Your task to perform on an android device: delete a single message in the gmail app Image 0: 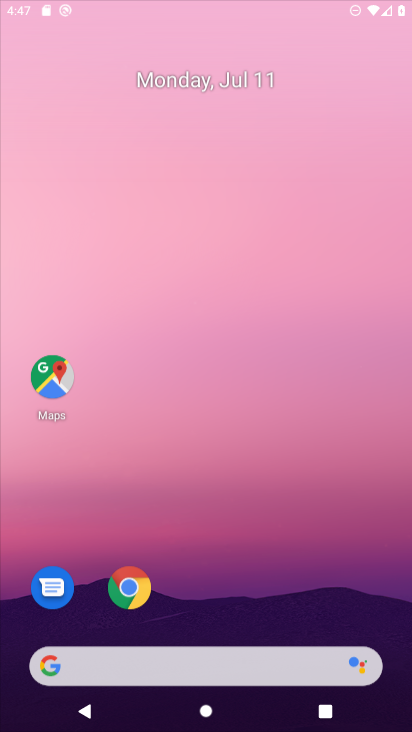
Step 0: press home button
Your task to perform on an android device: delete a single message in the gmail app Image 1: 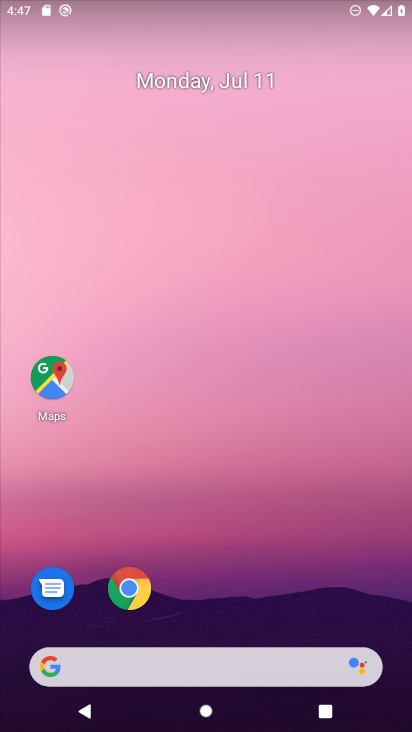
Step 1: drag from (247, 631) to (277, 49)
Your task to perform on an android device: delete a single message in the gmail app Image 2: 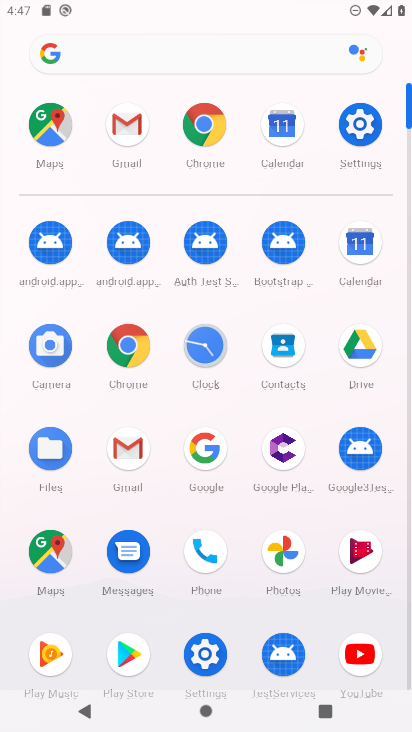
Step 2: click (123, 127)
Your task to perform on an android device: delete a single message in the gmail app Image 3: 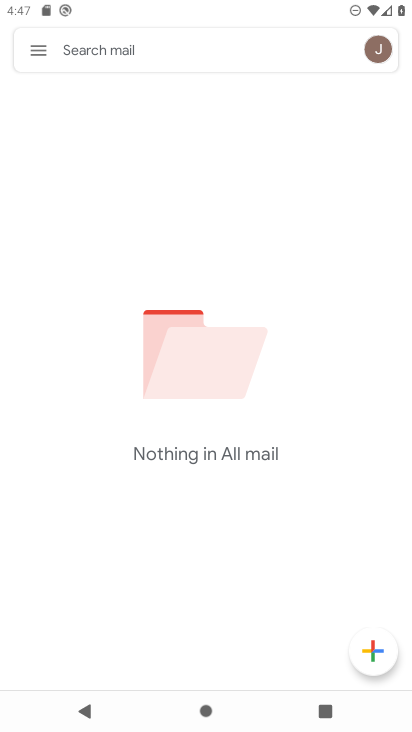
Step 3: click (35, 55)
Your task to perform on an android device: delete a single message in the gmail app Image 4: 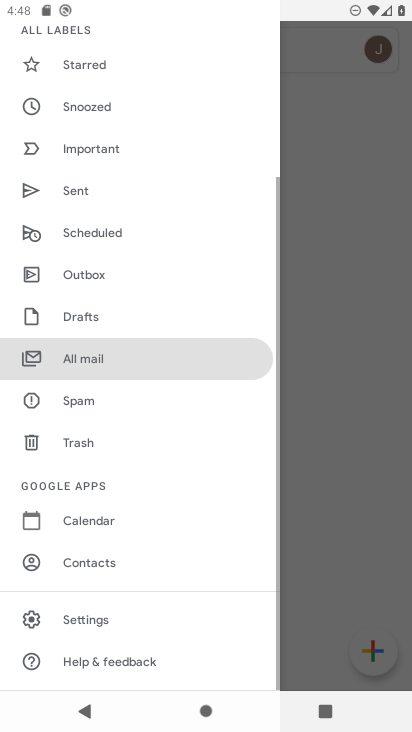
Step 4: click (115, 367)
Your task to perform on an android device: delete a single message in the gmail app Image 5: 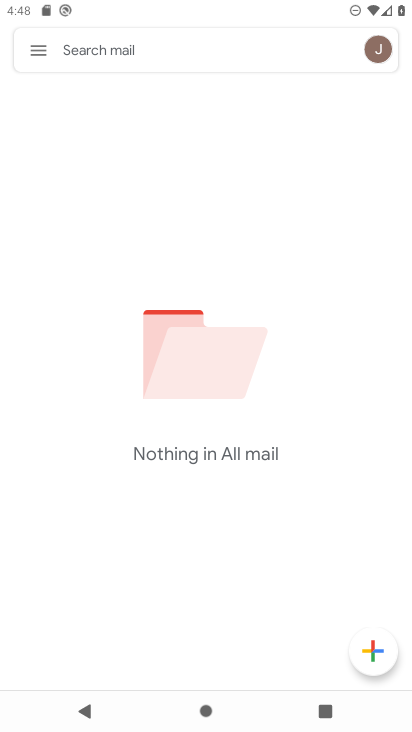
Step 5: task complete